Your task to perform on an android device: Go to Amazon Image 0: 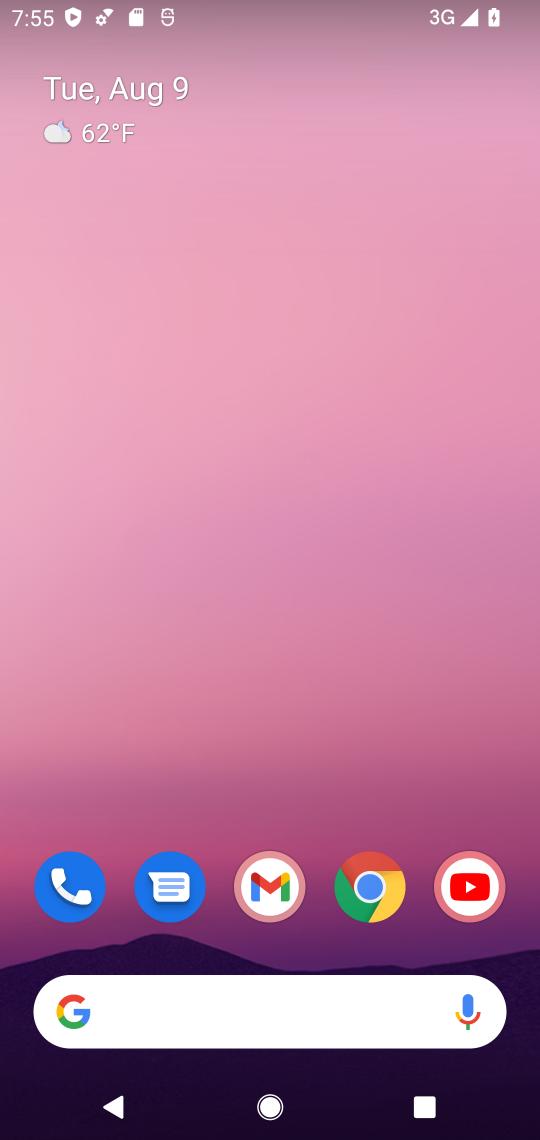
Step 0: click (371, 894)
Your task to perform on an android device: Go to Amazon Image 1: 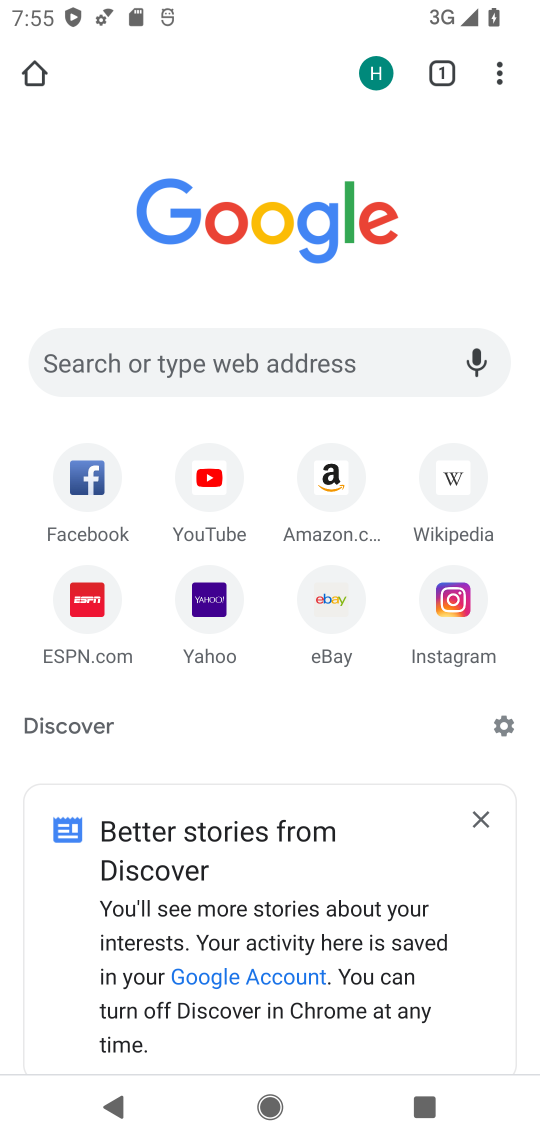
Step 1: click (326, 475)
Your task to perform on an android device: Go to Amazon Image 2: 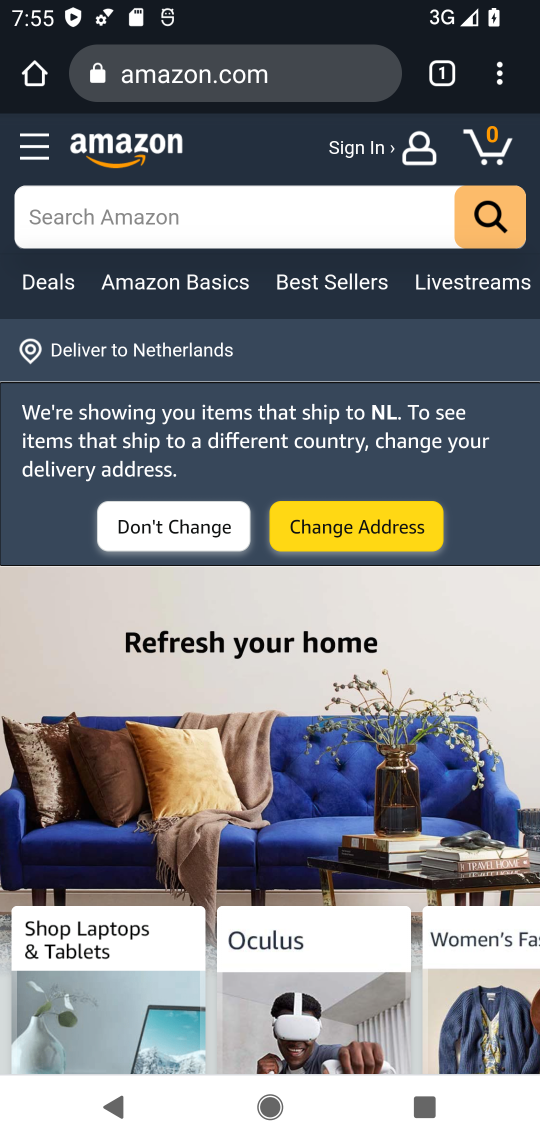
Step 2: task complete